Your task to perform on an android device: toggle airplane mode Image 0: 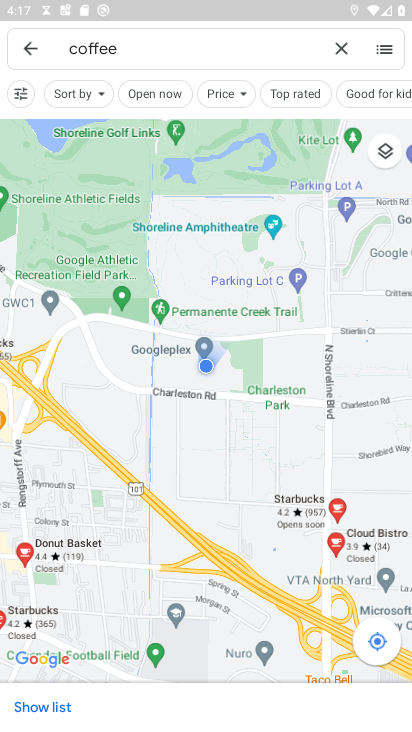
Step 0: press back button
Your task to perform on an android device: toggle airplane mode Image 1: 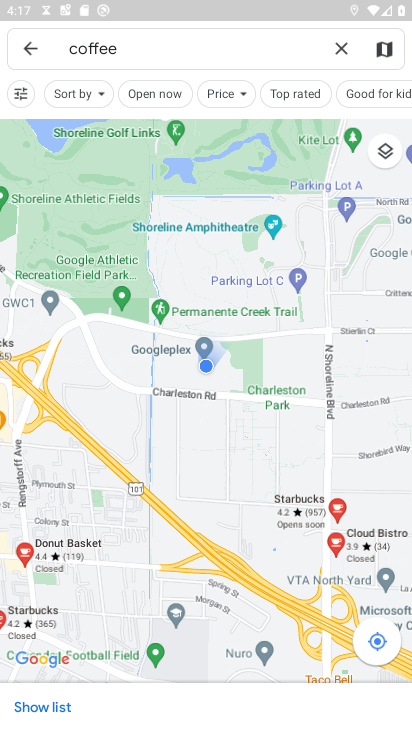
Step 1: press back button
Your task to perform on an android device: toggle airplane mode Image 2: 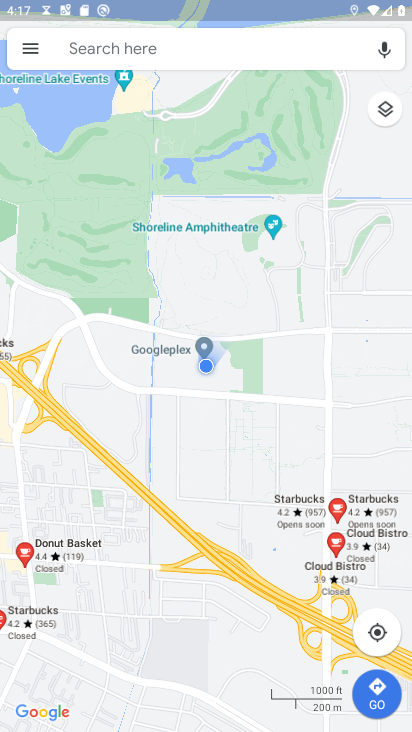
Step 2: click (20, 49)
Your task to perform on an android device: toggle airplane mode Image 3: 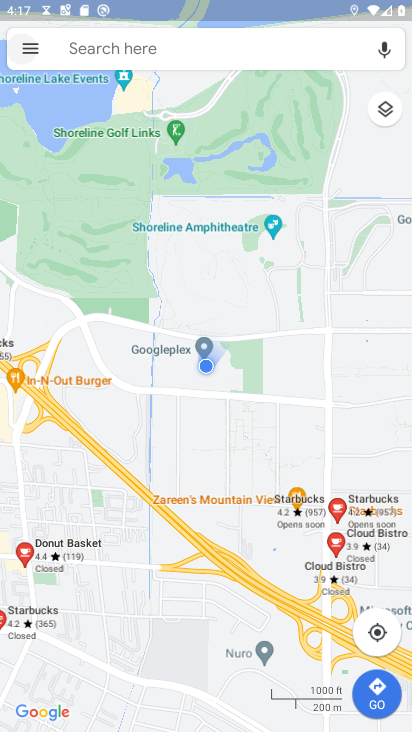
Step 3: click (32, 49)
Your task to perform on an android device: toggle airplane mode Image 4: 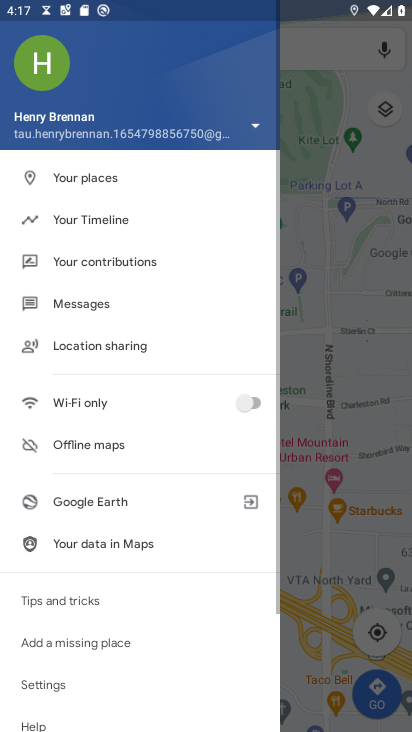
Step 4: click (340, 241)
Your task to perform on an android device: toggle airplane mode Image 5: 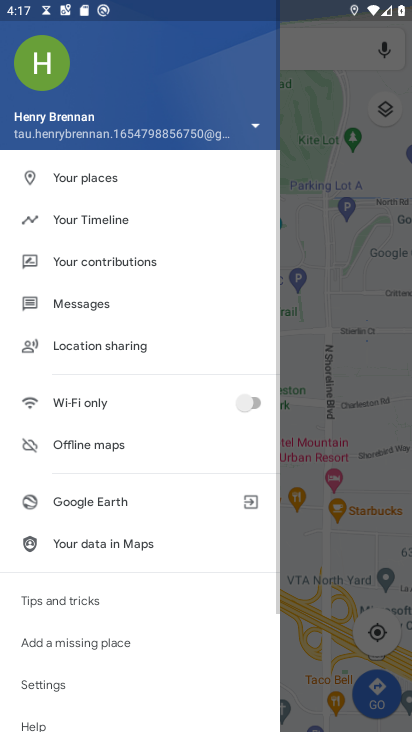
Step 5: click (353, 275)
Your task to perform on an android device: toggle airplane mode Image 6: 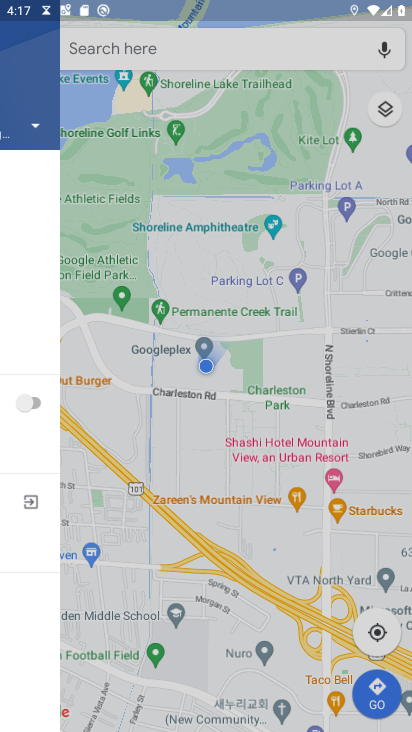
Step 6: click (354, 276)
Your task to perform on an android device: toggle airplane mode Image 7: 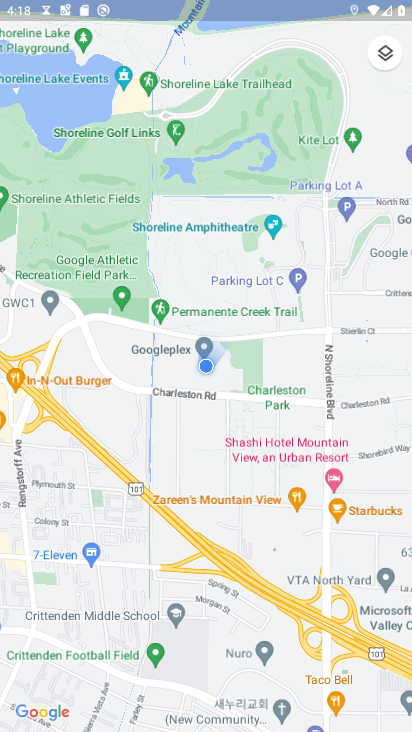
Step 7: press back button
Your task to perform on an android device: toggle airplane mode Image 8: 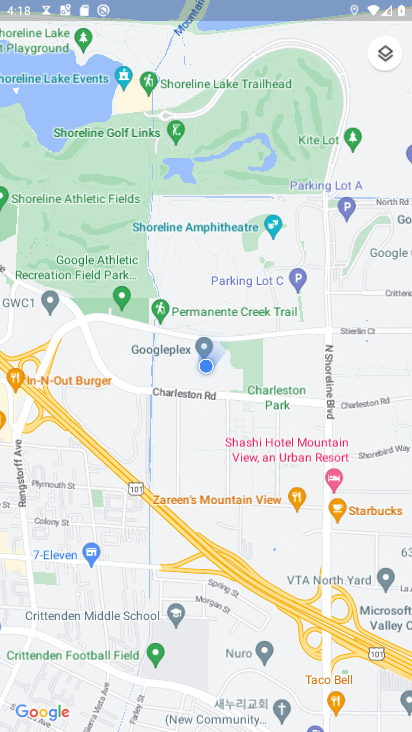
Step 8: press back button
Your task to perform on an android device: toggle airplane mode Image 9: 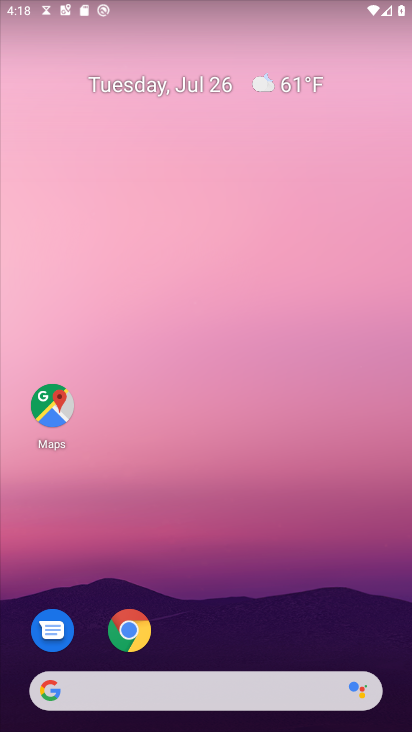
Step 9: drag from (172, 662) to (228, 135)
Your task to perform on an android device: toggle airplane mode Image 10: 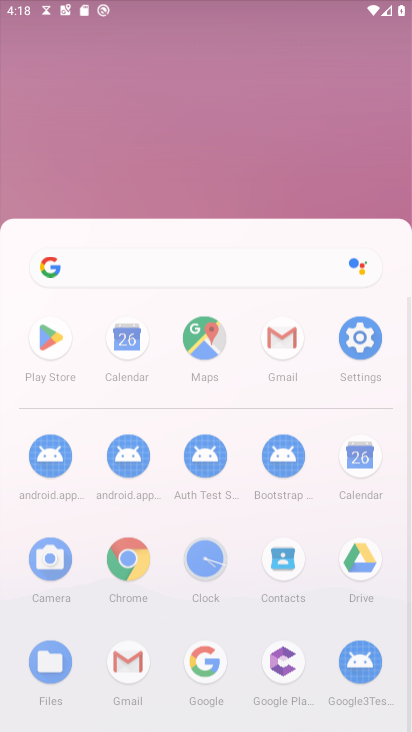
Step 10: drag from (217, 441) to (144, 41)
Your task to perform on an android device: toggle airplane mode Image 11: 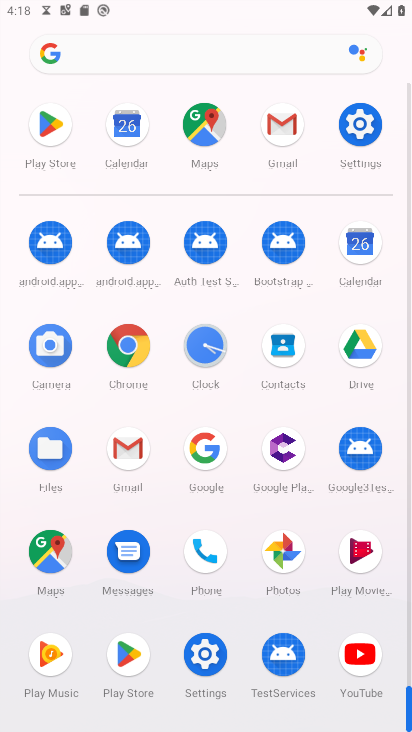
Step 11: drag from (150, 416) to (130, 268)
Your task to perform on an android device: toggle airplane mode Image 12: 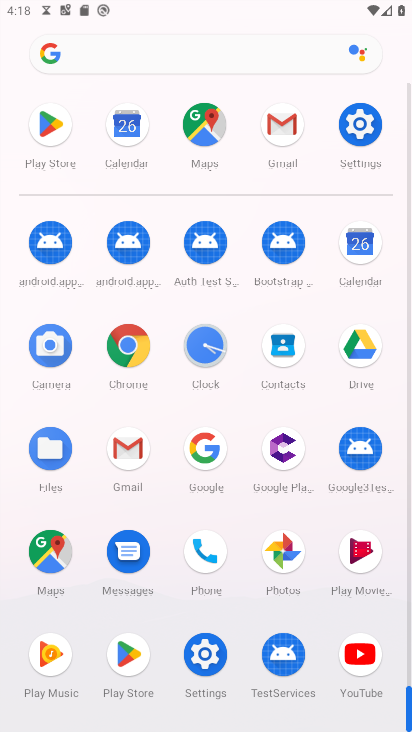
Step 12: click (360, 121)
Your task to perform on an android device: toggle airplane mode Image 13: 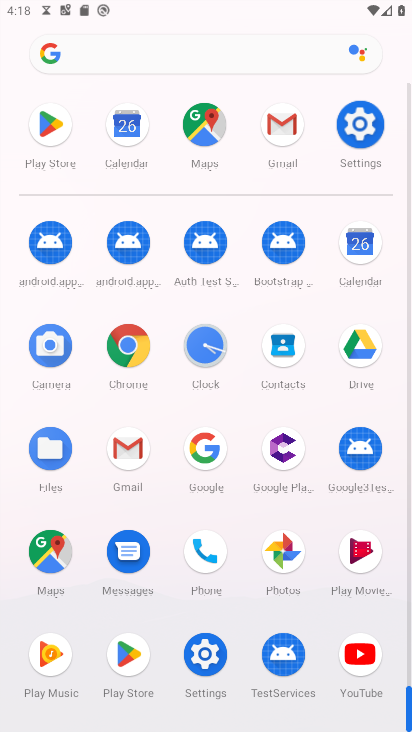
Step 13: click (364, 119)
Your task to perform on an android device: toggle airplane mode Image 14: 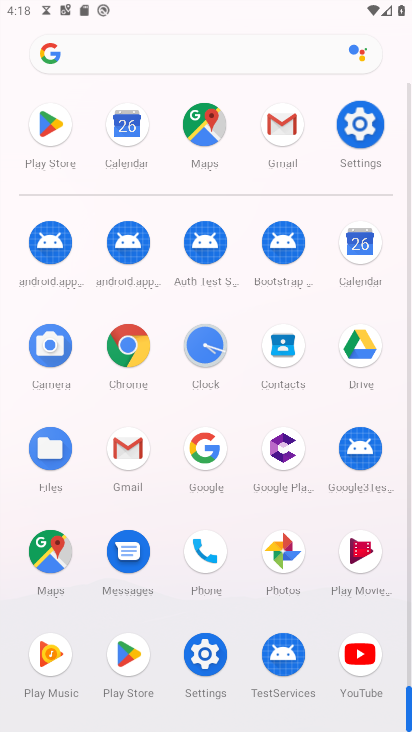
Step 14: click (359, 131)
Your task to perform on an android device: toggle airplane mode Image 15: 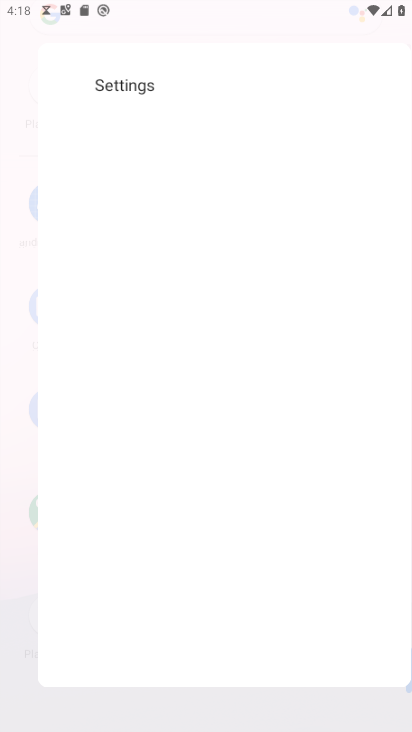
Step 15: click (362, 131)
Your task to perform on an android device: toggle airplane mode Image 16: 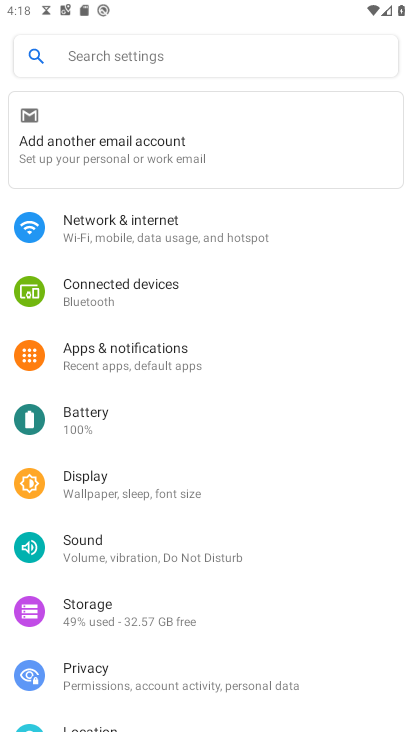
Step 16: drag from (110, 508) to (127, 221)
Your task to perform on an android device: toggle airplane mode Image 17: 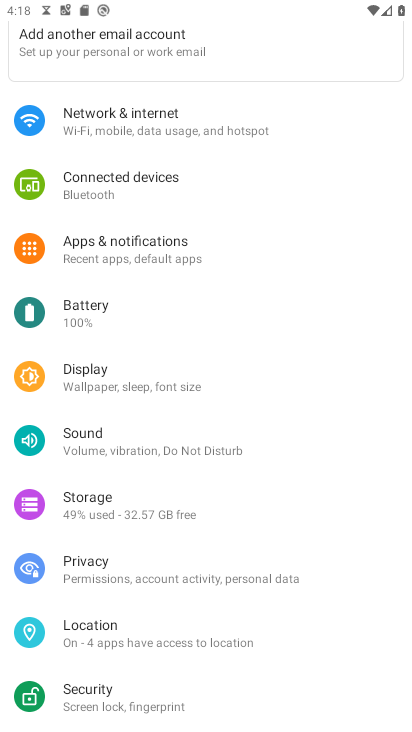
Step 17: drag from (161, 304) to (119, 166)
Your task to perform on an android device: toggle airplane mode Image 18: 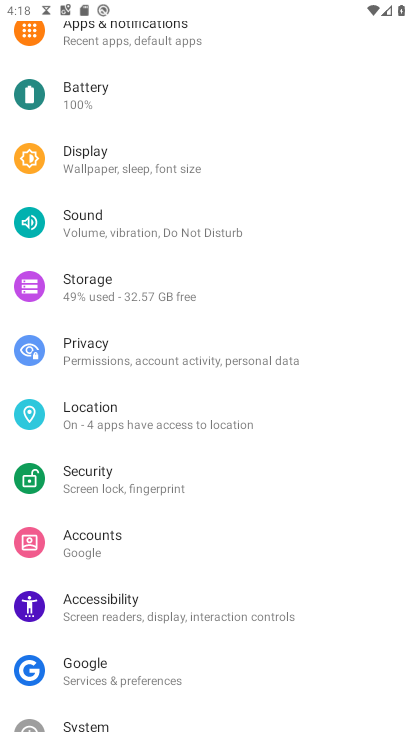
Step 18: drag from (181, 532) to (177, 255)
Your task to perform on an android device: toggle airplane mode Image 19: 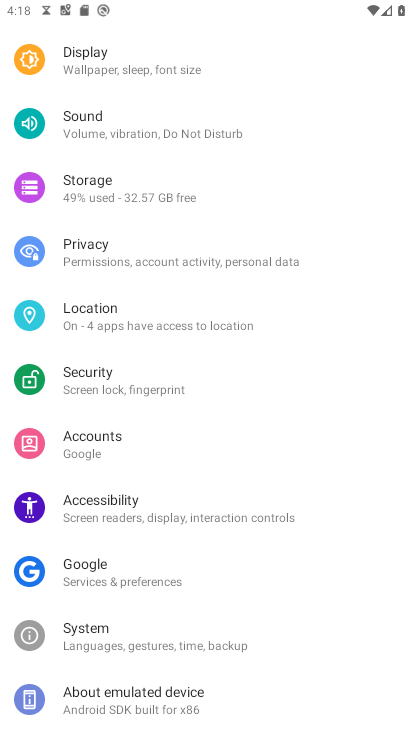
Step 19: click (97, 130)
Your task to perform on an android device: toggle airplane mode Image 20: 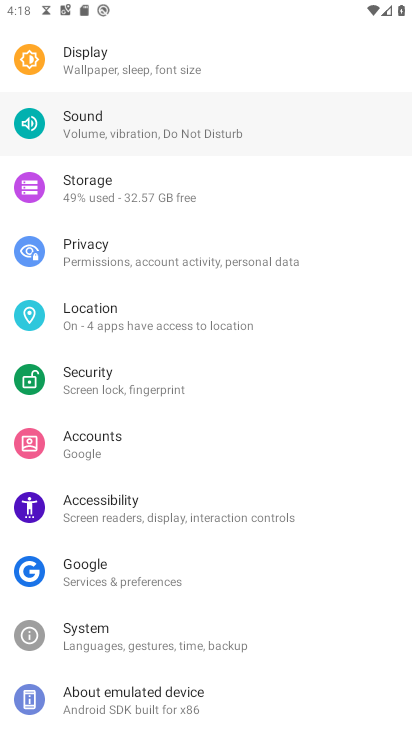
Step 20: click (98, 131)
Your task to perform on an android device: toggle airplane mode Image 21: 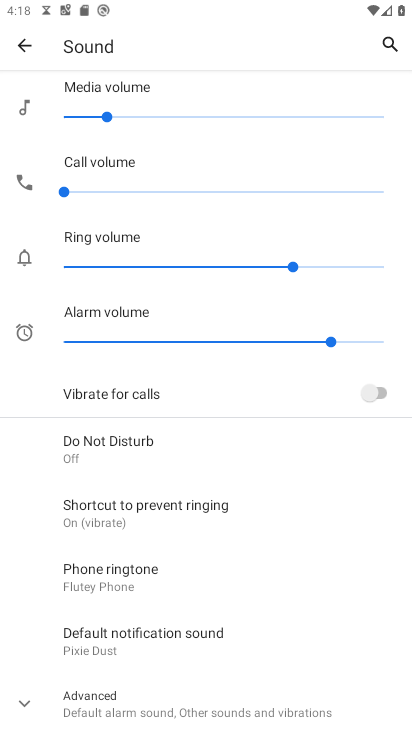
Step 21: click (28, 51)
Your task to perform on an android device: toggle airplane mode Image 22: 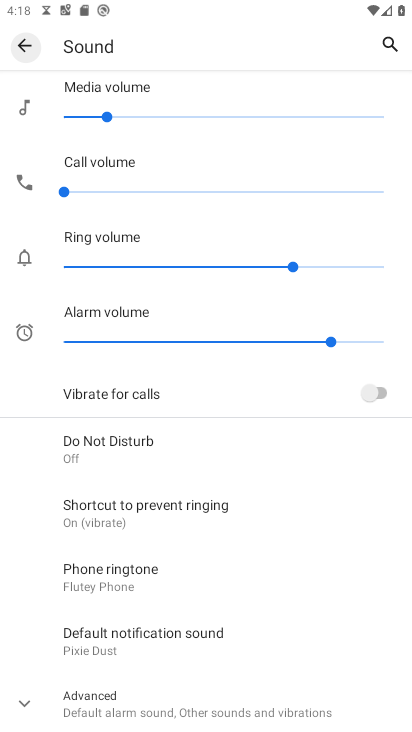
Step 22: click (28, 50)
Your task to perform on an android device: toggle airplane mode Image 23: 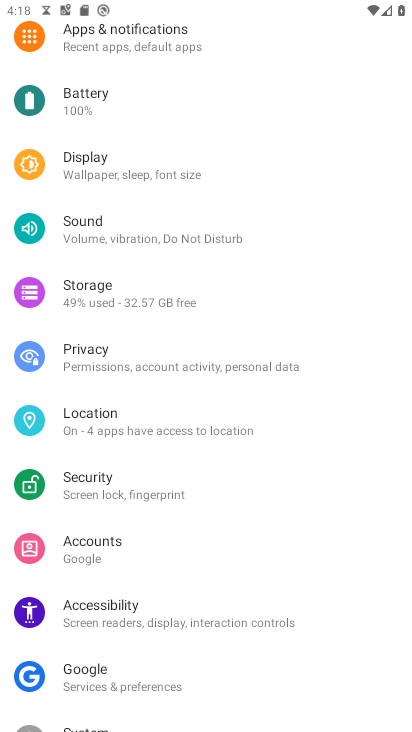
Step 23: drag from (110, 65) to (192, 540)
Your task to perform on an android device: toggle airplane mode Image 24: 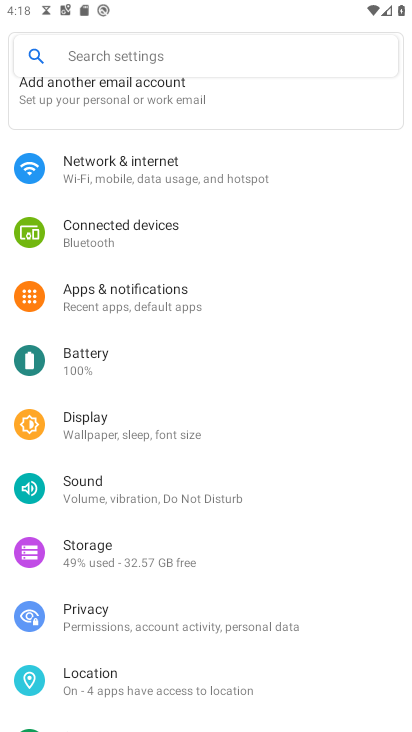
Step 24: drag from (150, 225) to (171, 496)
Your task to perform on an android device: toggle airplane mode Image 25: 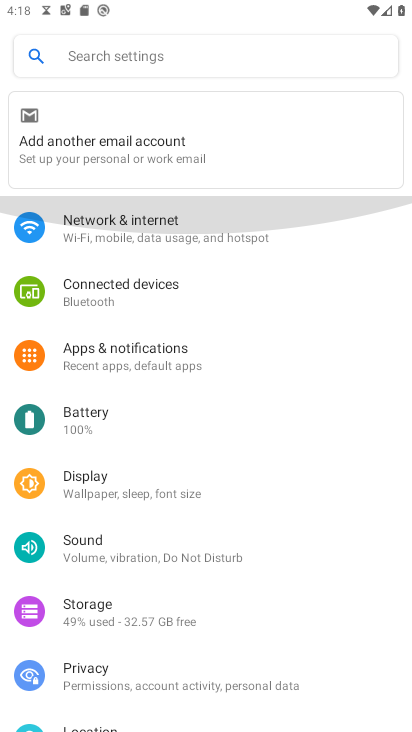
Step 25: drag from (106, 186) to (181, 647)
Your task to perform on an android device: toggle airplane mode Image 26: 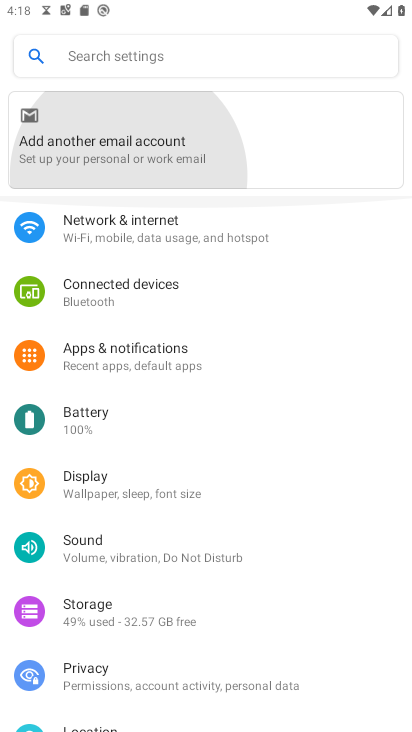
Step 26: drag from (104, 316) to (129, 611)
Your task to perform on an android device: toggle airplane mode Image 27: 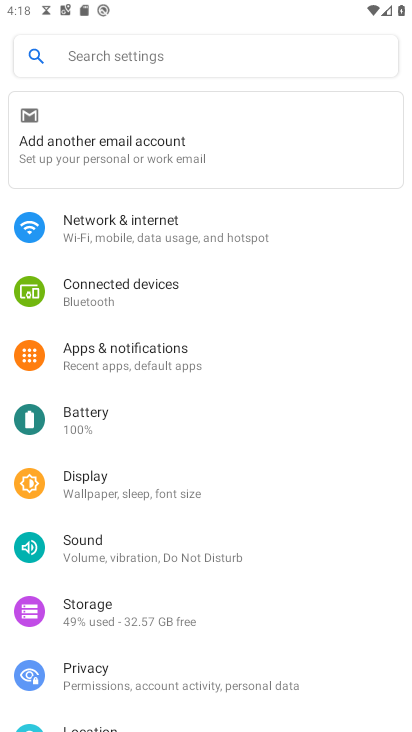
Step 27: click (113, 226)
Your task to perform on an android device: toggle airplane mode Image 28: 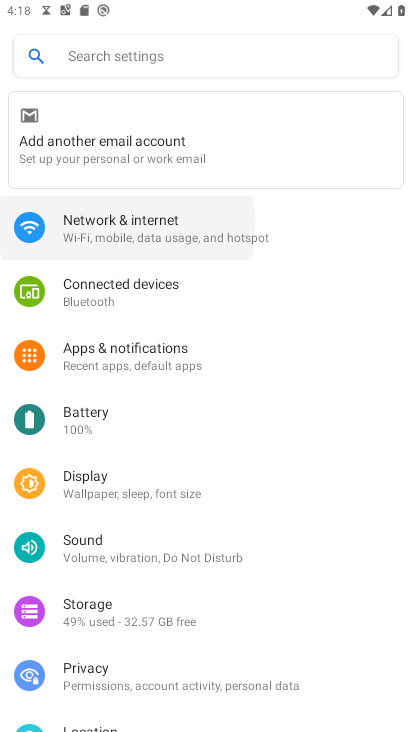
Step 28: click (113, 226)
Your task to perform on an android device: toggle airplane mode Image 29: 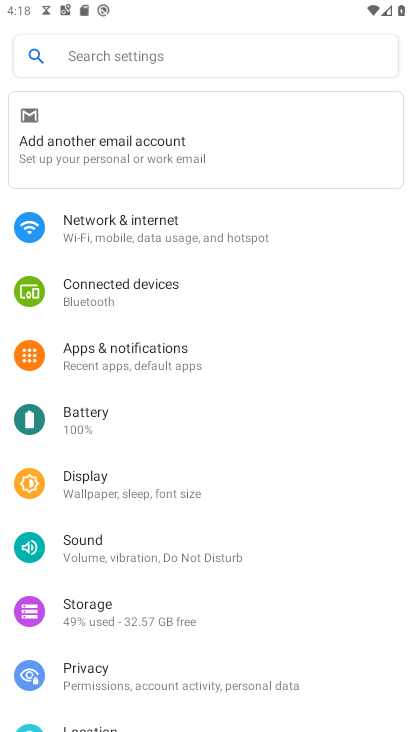
Step 29: click (118, 224)
Your task to perform on an android device: toggle airplane mode Image 30: 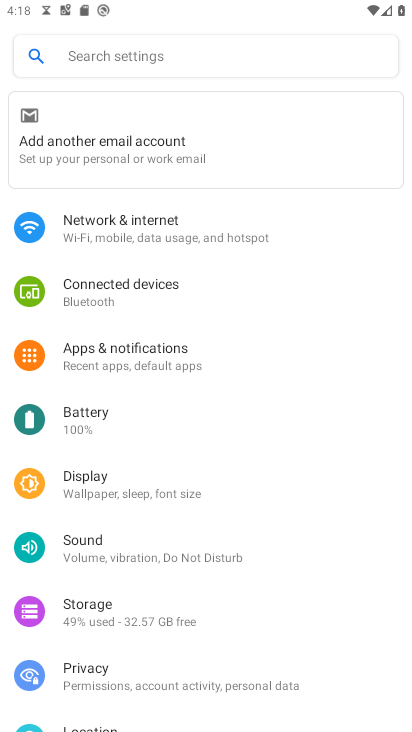
Step 30: click (118, 222)
Your task to perform on an android device: toggle airplane mode Image 31: 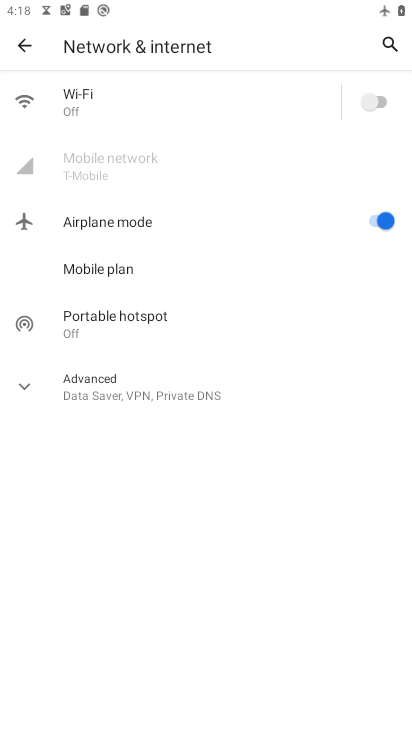
Step 31: task complete